Your task to perform on an android device: Open Google Chrome and open the bookmarks view Image 0: 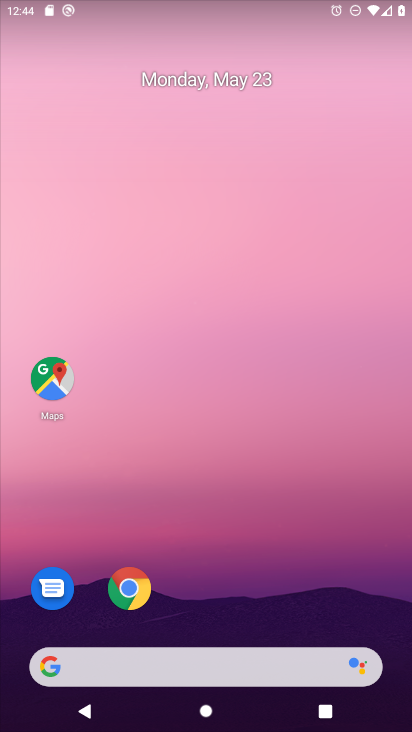
Step 0: drag from (327, 692) to (205, 111)
Your task to perform on an android device: Open Google Chrome and open the bookmarks view Image 1: 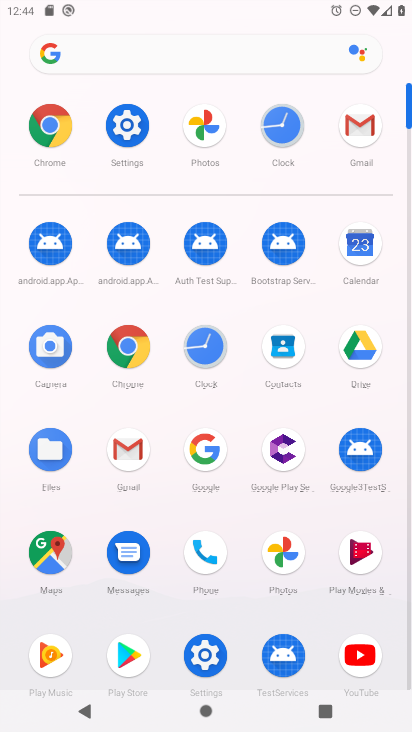
Step 1: click (65, 134)
Your task to perform on an android device: Open Google Chrome and open the bookmarks view Image 2: 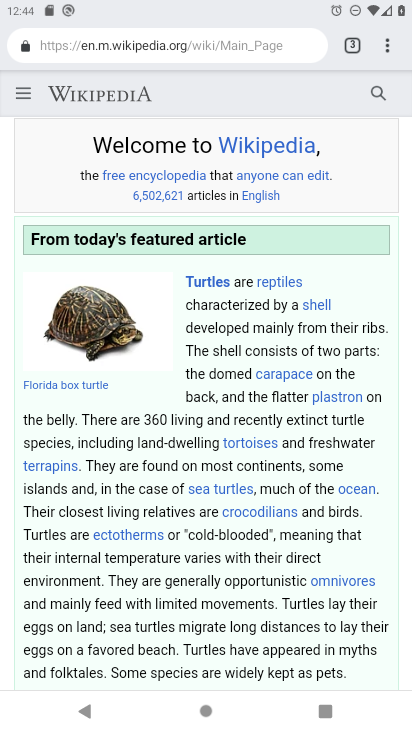
Step 2: click (377, 54)
Your task to perform on an android device: Open Google Chrome and open the bookmarks view Image 3: 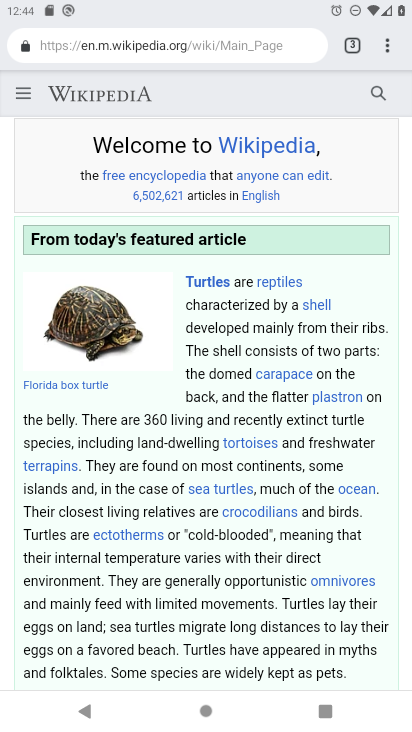
Step 3: click (385, 56)
Your task to perform on an android device: Open Google Chrome and open the bookmarks view Image 4: 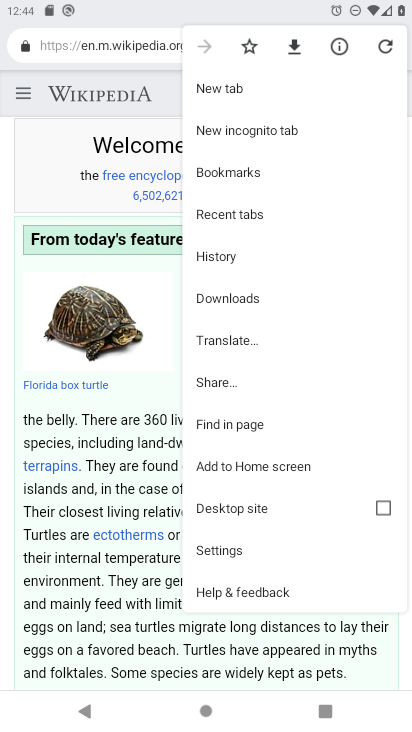
Step 4: click (232, 174)
Your task to perform on an android device: Open Google Chrome and open the bookmarks view Image 5: 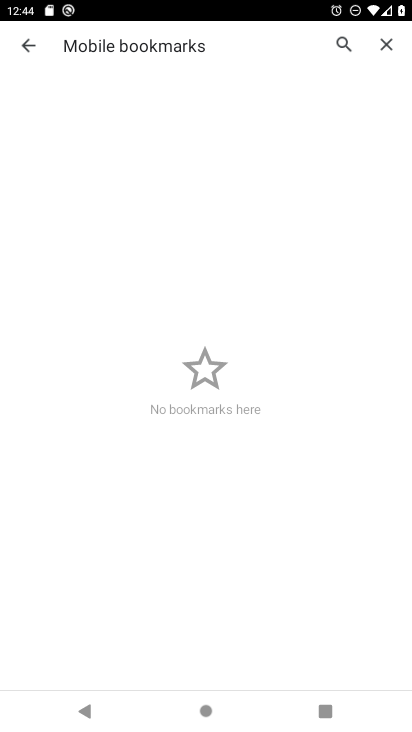
Step 5: task complete